Your task to perform on an android device: delete browsing data in the chrome app Image 0: 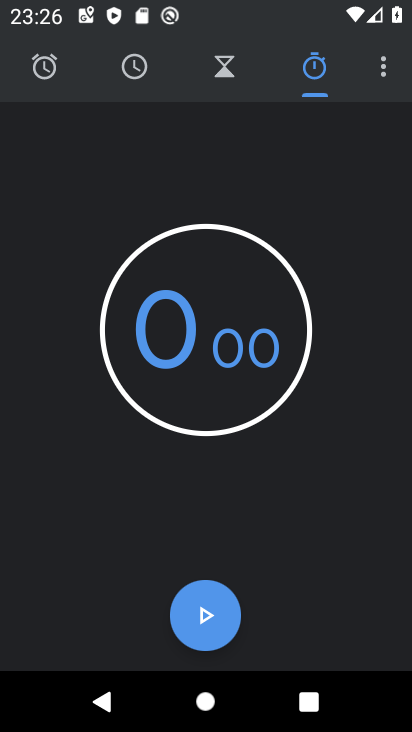
Step 0: press home button
Your task to perform on an android device: delete browsing data in the chrome app Image 1: 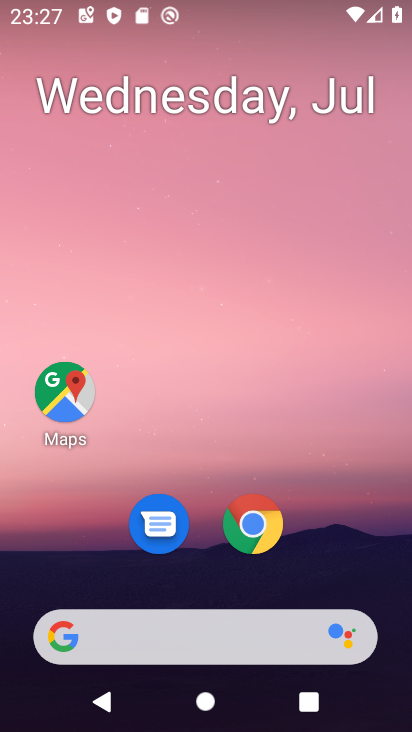
Step 1: click (260, 537)
Your task to perform on an android device: delete browsing data in the chrome app Image 2: 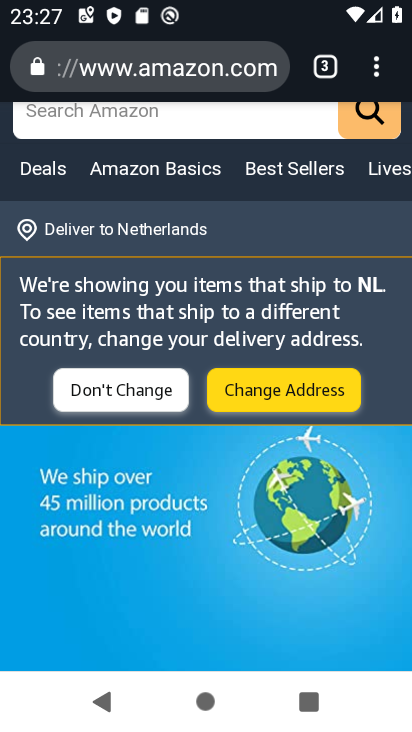
Step 2: drag from (375, 71) to (246, 517)
Your task to perform on an android device: delete browsing data in the chrome app Image 3: 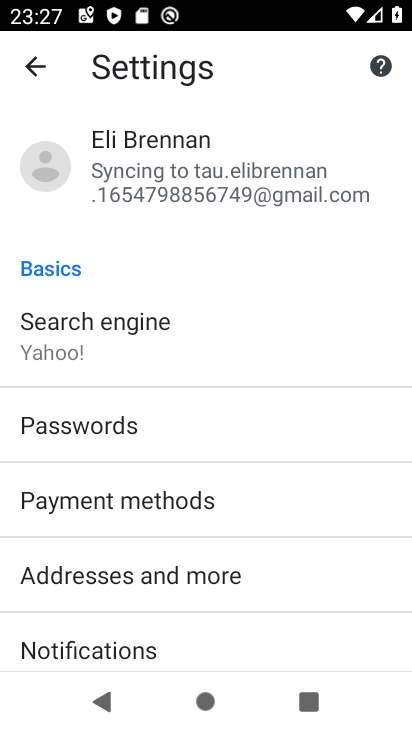
Step 3: drag from (210, 644) to (236, 375)
Your task to perform on an android device: delete browsing data in the chrome app Image 4: 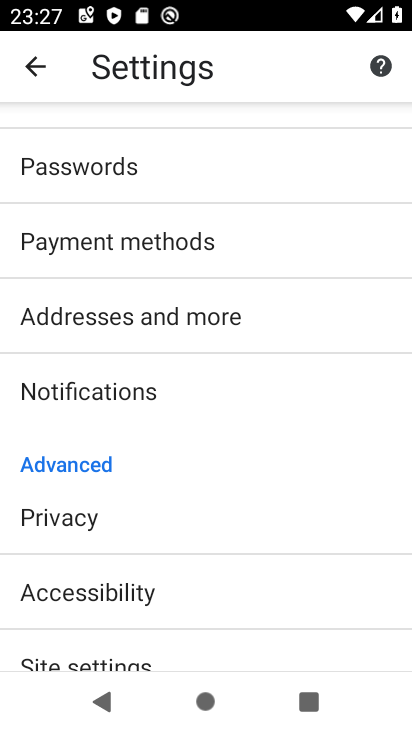
Step 4: drag from (245, 554) to (303, 310)
Your task to perform on an android device: delete browsing data in the chrome app Image 5: 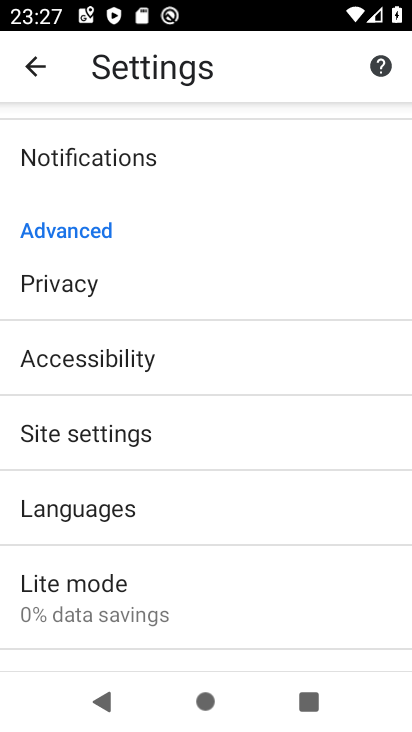
Step 5: click (42, 277)
Your task to perform on an android device: delete browsing data in the chrome app Image 6: 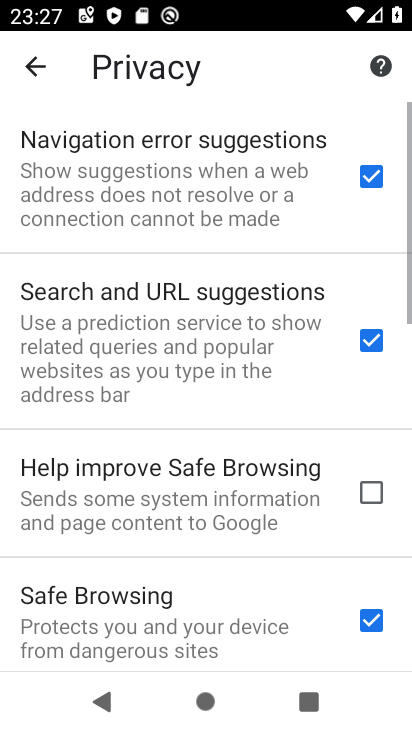
Step 6: drag from (264, 633) to (255, 128)
Your task to perform on an android device: delete browsing data in the chrome app Image 7: 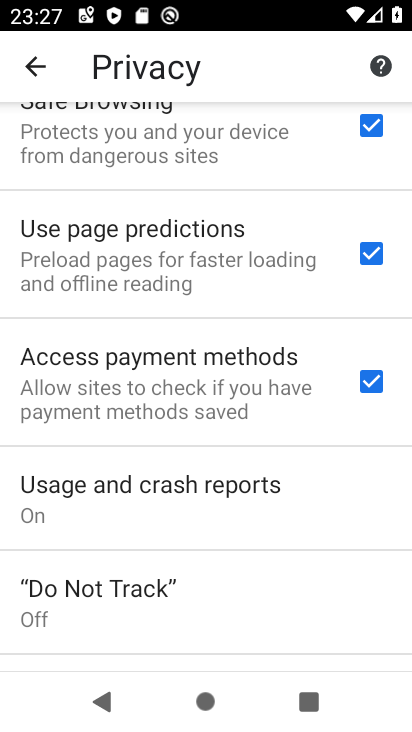
Step 7: drag from (243, 611) to (266, 43)
Your task to perform on an android device: delete browsing data in the chrome app Image 8: 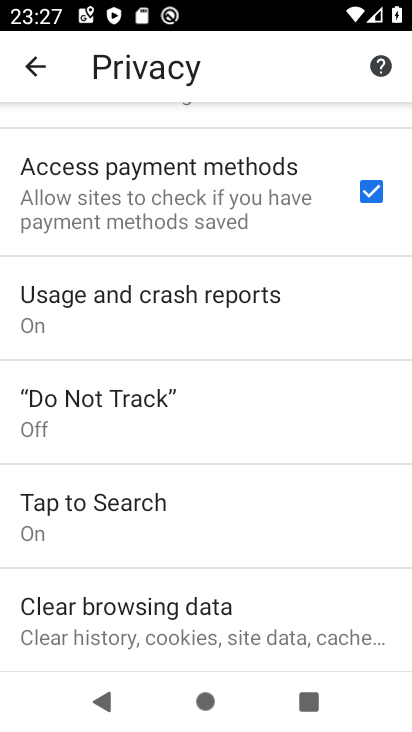
Step 8: click (113, 615)
Your task to perform on an android device: delete browsing data in the chrome app Image 9: 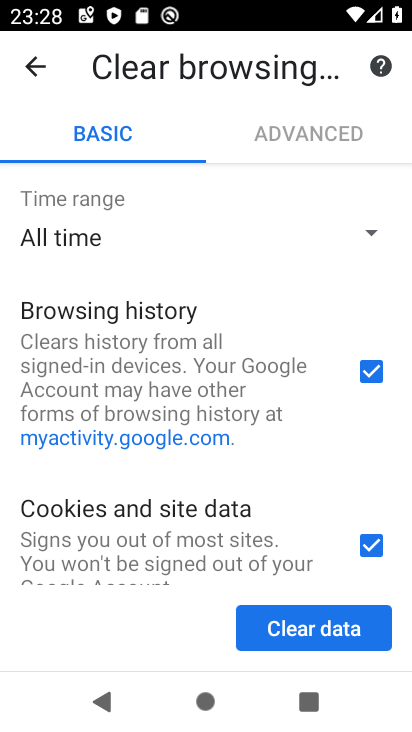
Step 9: click (321, 634)
Your task to perform on an android device: delete browsing data in the chrome app Image 10: 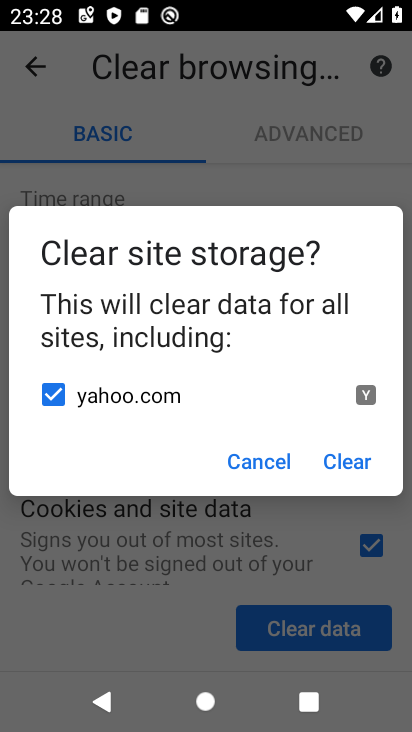
Step 10: click (346, 465)
Your task to perform on an android device: delete browsing data in the chrome app Image 11: 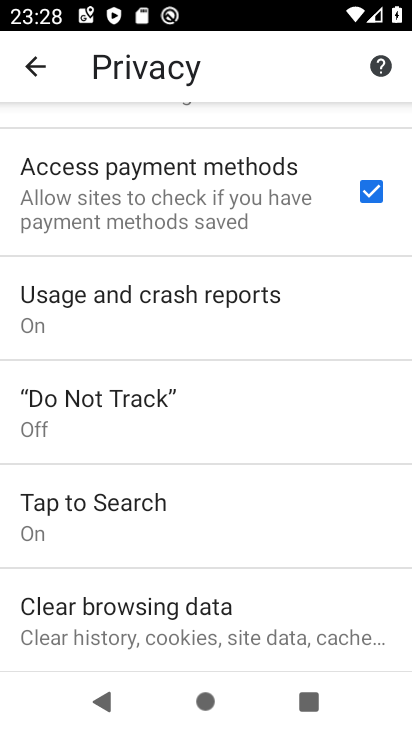
Step 11: task complete